Your task to perform on an android device: see tabs open on other devices in the chrome app Image 0: 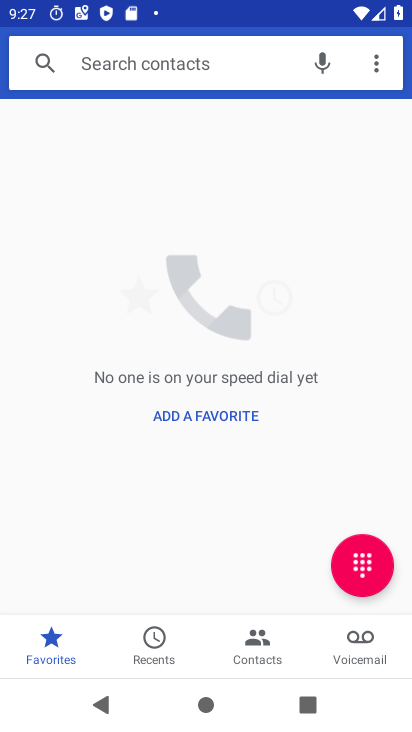
Step 0: press back button
Your task to perform on an android device: see tabs open on other devices in the chrome app Image 1: 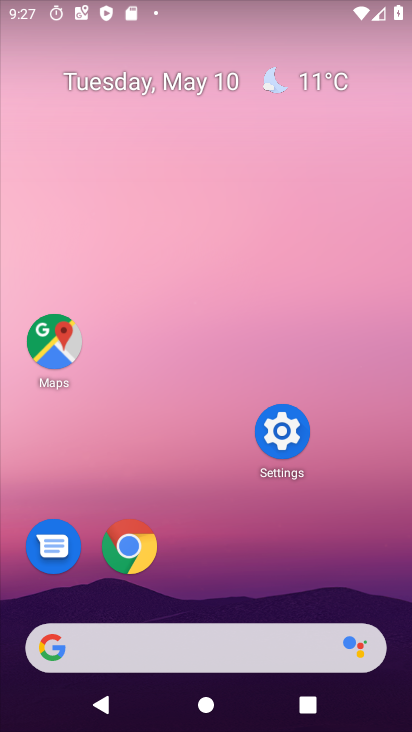
Step 1: click (133, 553)
Your task to perform on an android device: see tabs open on other devices in the chrome app Image 2: 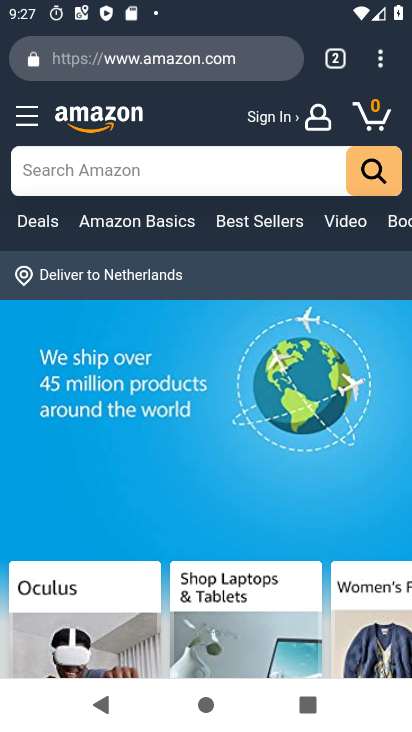
Step 2: click (379, 54)
Your task to perform on an android device: see tabs open on other devices in the chrome app Image 3: 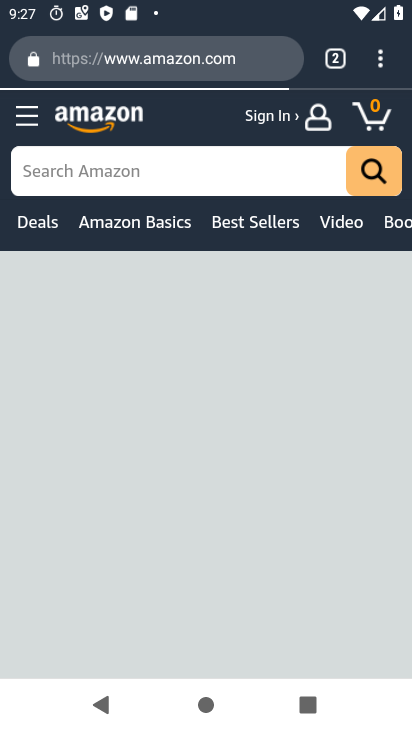
Step 3: task complete